Your task to perform on an android device: Open the calendar and show me this week's events? Image 0: 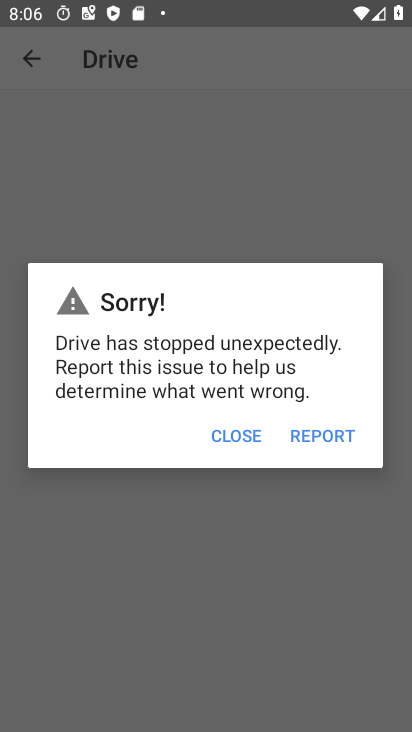
Step 0: press home button
Your task to perform on an android device: Open the calendar and show me this week's events? Image 1: 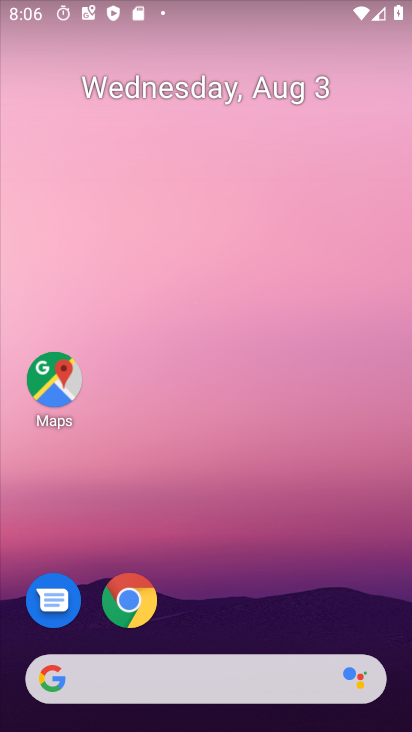
Step 1: drag from (187, 616) to (173, 0)
Your task to perform on an android device: Open the calendar and show me this week's events? Image 2: 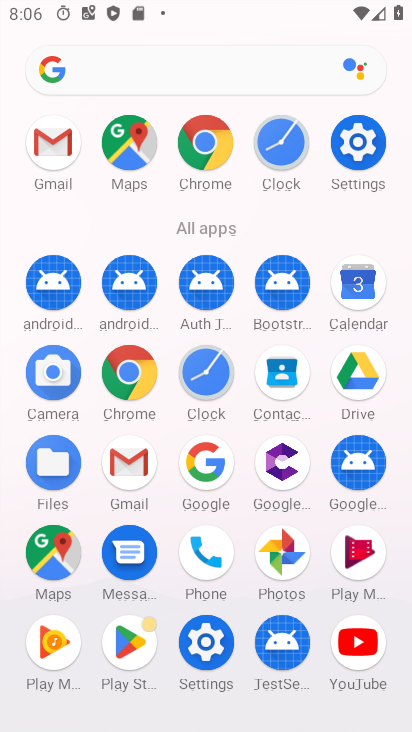
Step 2: click (362, 296)
Your task to perform on an android device: Open the calendar and show me this week's events? Image 3: 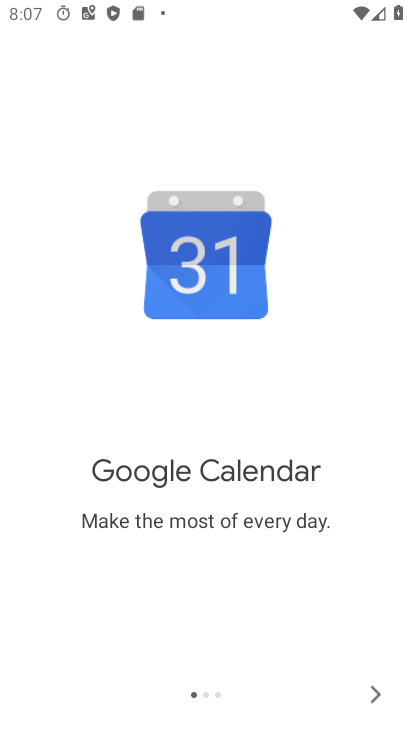
Step 3: click (380, 700)
Your task to perform on an android device: Open the calendar and show me this week's events? Image 4: 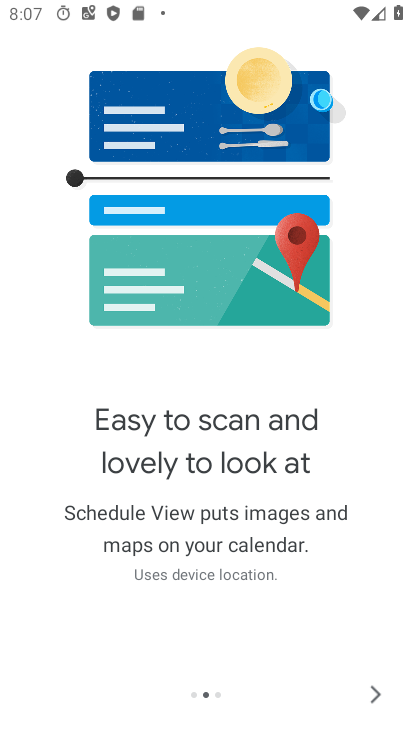
Step 4: click (372, 697)
Your task to perform on an android device: Open the calendar and show me this week's events? Image 5: 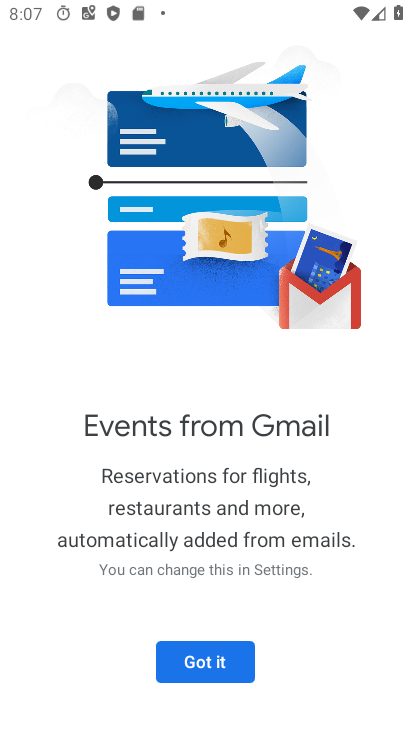
Step 5: click (206, 674)
Your task to perform on an android device: Open the calendar and show me this week's events? Image 6: 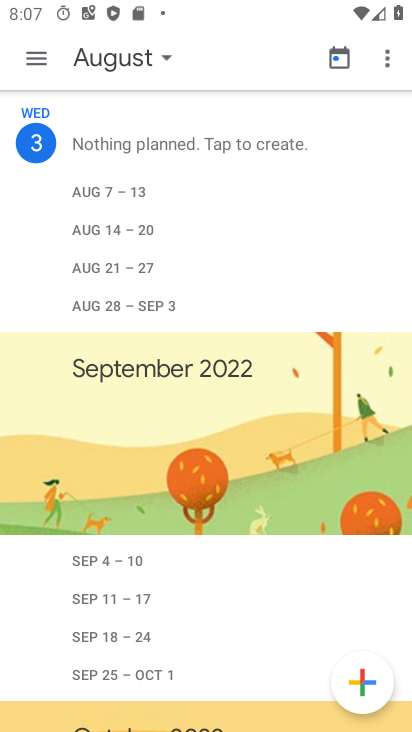
Step 6: click (32, 55)
Your task to perform on an android device: Open the calendar and show me this week's events? Image 7: 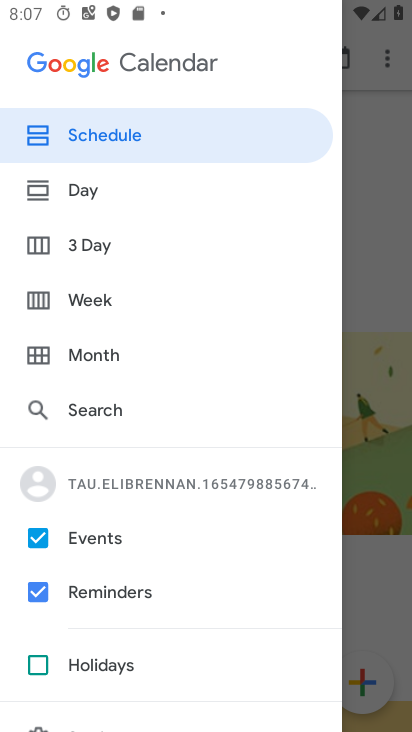
Step 7: click (77, 596)
Your task to perform on an android device: Open the calendar and show me this week's events? Image 8: 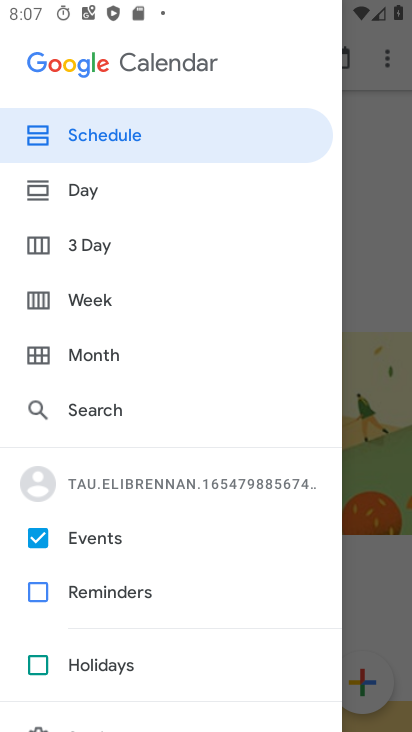
Step 8: click (92, 303)
Your task to perform on an android device: Open the calendar and show me this week's events? Image 9: 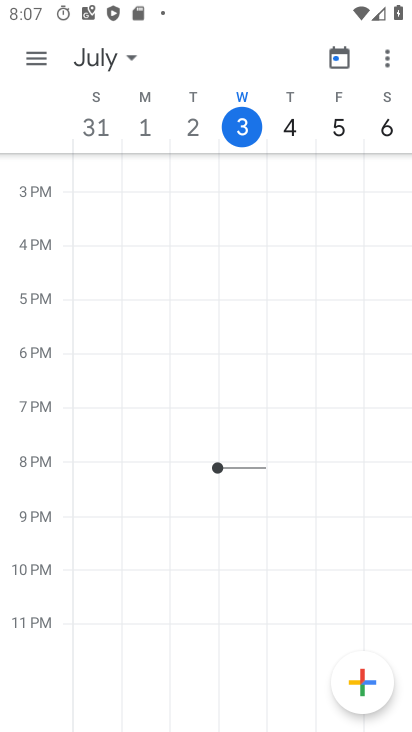
Step 9: task complete